Your task to perform on an android device: turn on showing notifications on the lock screen Image 0: 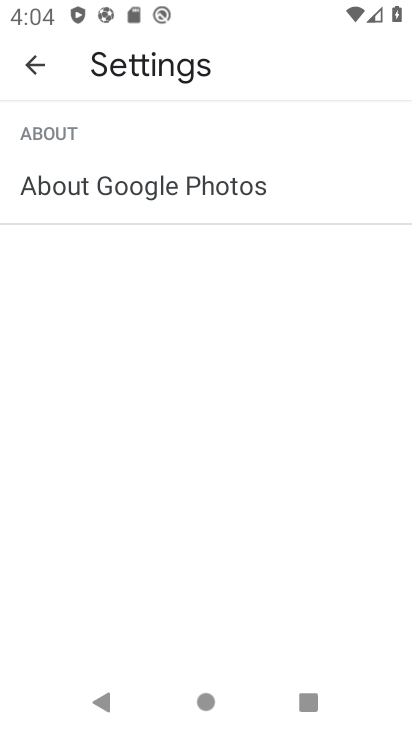
Step 0: press home button
Your task to perform on an android device: turn on showing notifications on the lock screen Image 1: 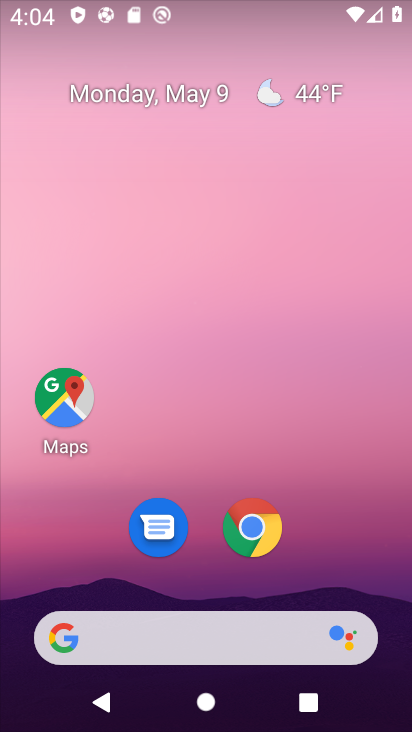
Step 1: drag from (211, 591) to (204, 180)
Your task to perform on an android device: turn on showing notifications on the lock screen Image 2: 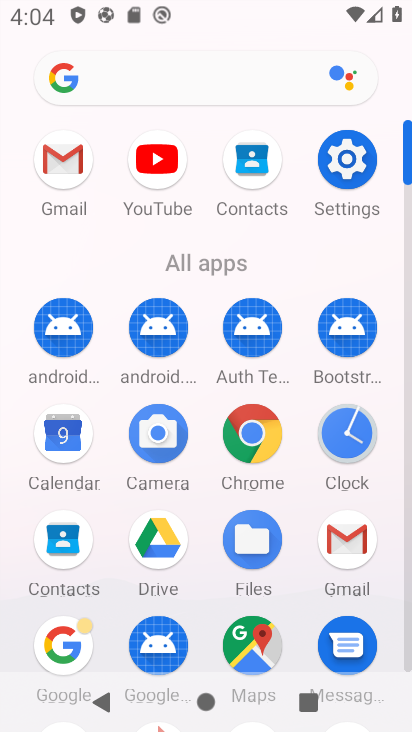
Step 2: click (329, 161)
Your task to perform on an android device: turn on showing notifications on the lock screen Image 3: 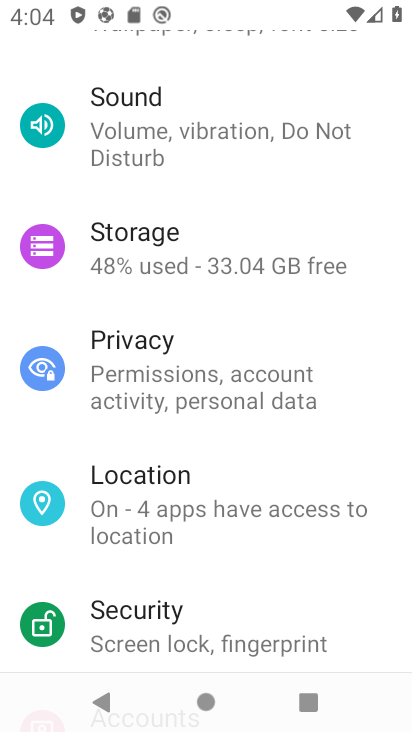
Step 3: drag from (157, 559) to (258, 72)
Your task to perform on an android device: turn on showing notifications on the lock screen Image 4: 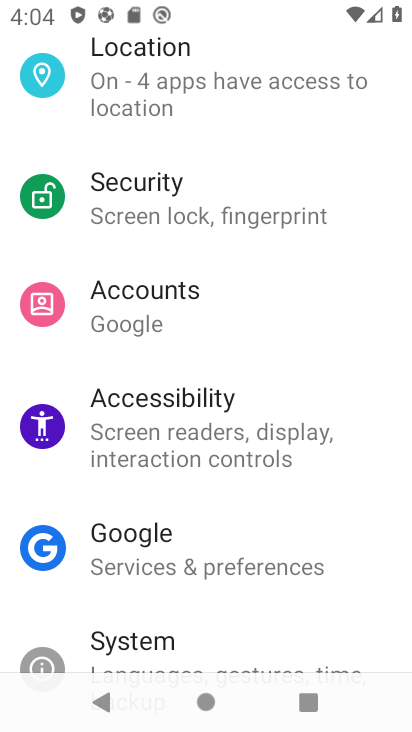
Step 4: drag from (240, 192) to (255, 629)
Your task to perform on an android device: turn on showing notifications on the lock screen Image 5: 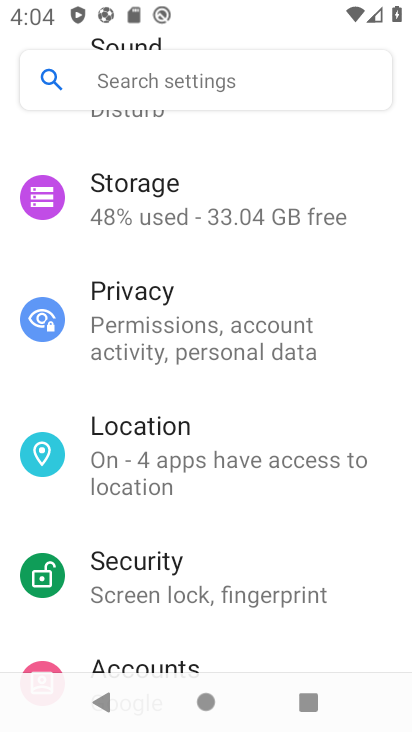
Step 5: drag from (212, 152) to (253, 641)
Your task to perform on an android device: turn on showing notifications on the lock screen Image 6: 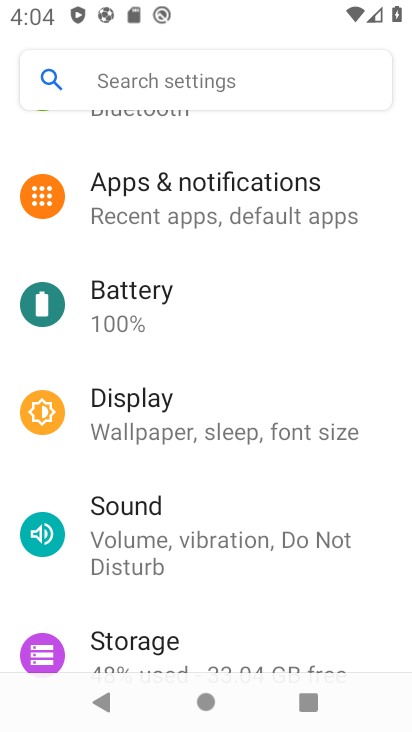
Step 6: click (225, 186)
Your task to perform on an android device: turn on showing notifications on the lock screen Image 7: 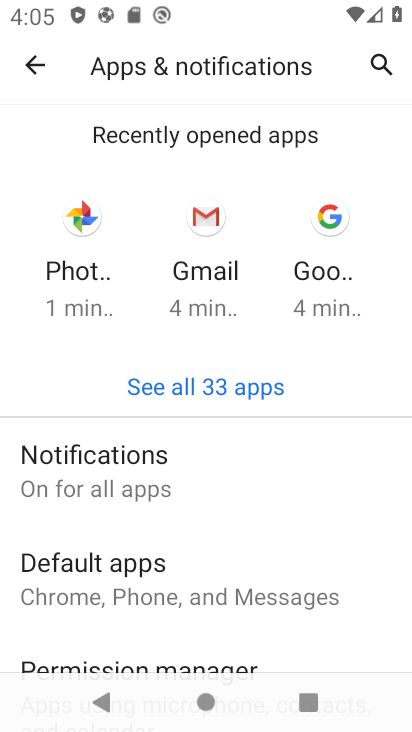
Step 7: click (179, 471)
Your task to perform on an android device: turn on showing notifications on the lock screen Image 8: 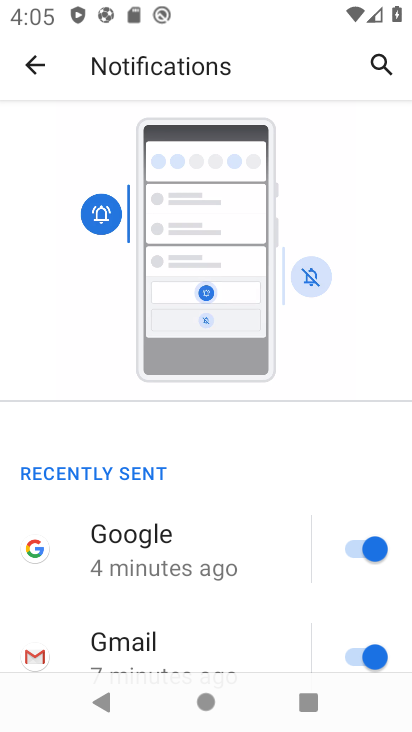
Step 8: drag from (177, 603) to (229, 82)
Your task to perform on an android device: turn on showing notifications on the lock screen Image 9: 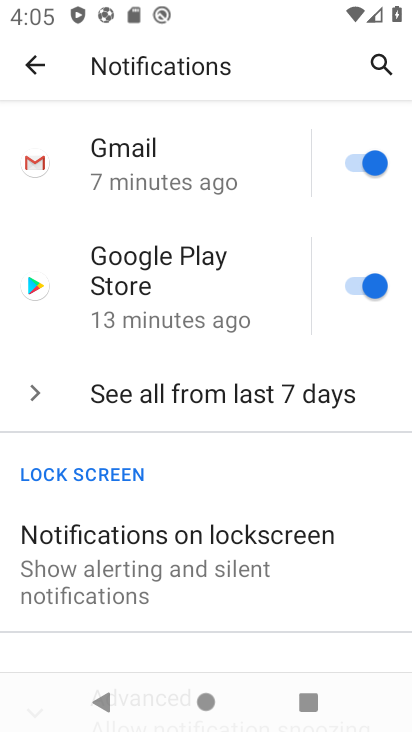
Step 9: click (262, 602)
Your task to perform on an android device: turn on showing notifications on the lock screen Image 10: 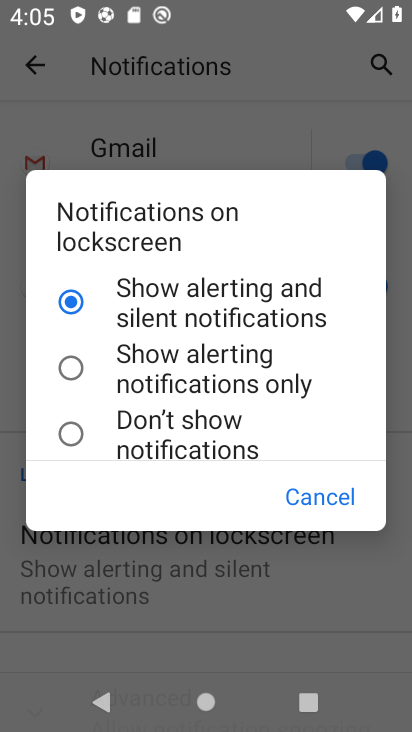
Step 10: task complete